Your task to perform on an android device: Turn off the flashlight Image 0: 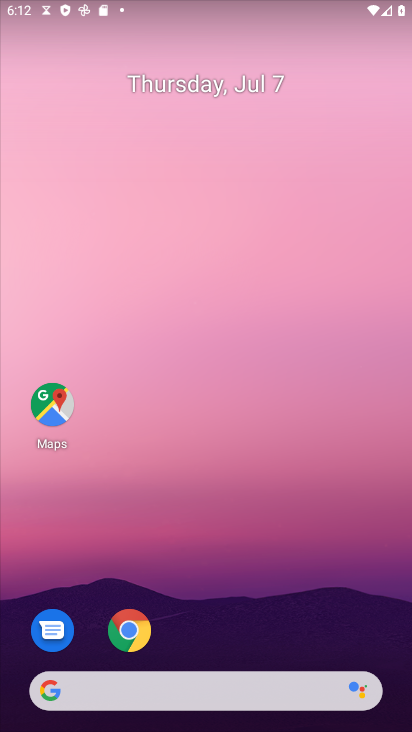
Step 0: drag from (188, 622) to (187, 181)
Your task to perform on an android device: Turn off the flashlight Image 1: 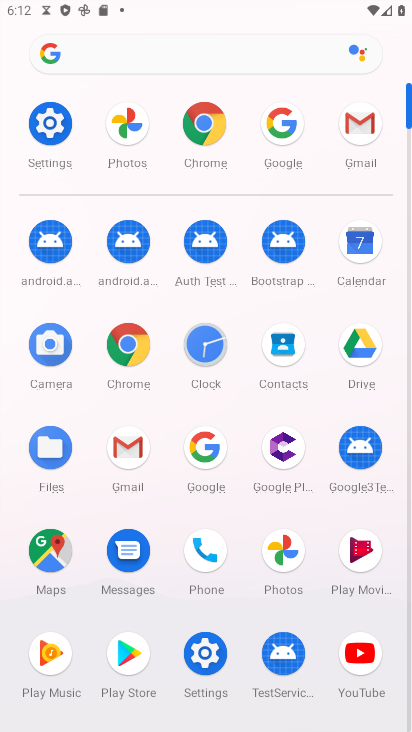
Step 1: click (46, 125)
Your task to perform on an android device: Turn off the flashlight Image 2: 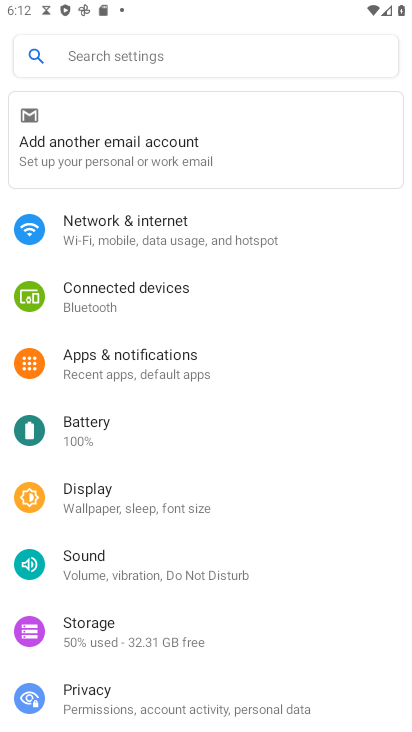
Step 2: task complete